Your task to perform on an android device: clear history in the chrome app Image 0: 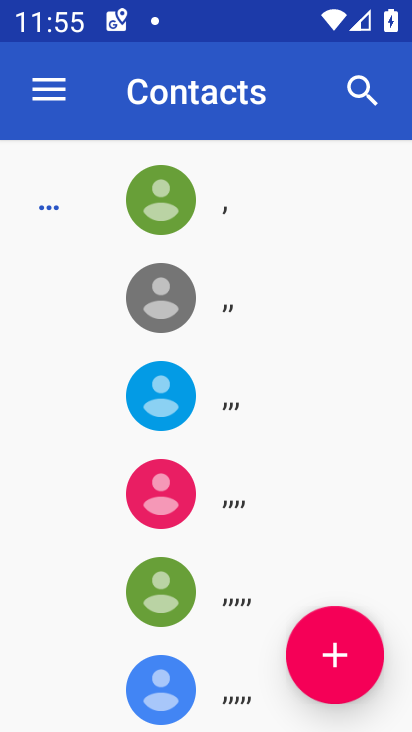
Step 0: press home button
Your task to perform on an android device: clear history in the chrome app Image 1: 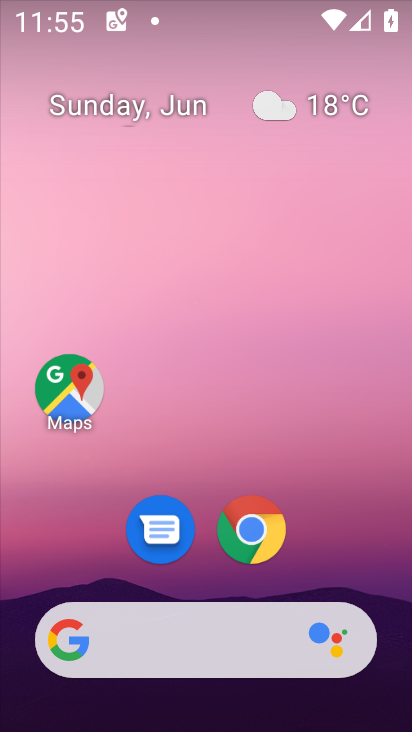
Step 1: drag from (307, 531) to (178, 5)
Your task to perform on an android device: clear history in the chrome app Image 2: 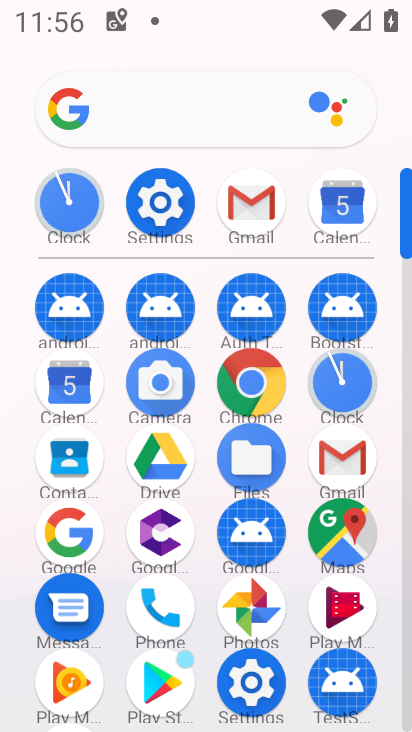
Step 2: click (256, 385)
Your task to perform on an android device: clear history in the chrome app Image 3: 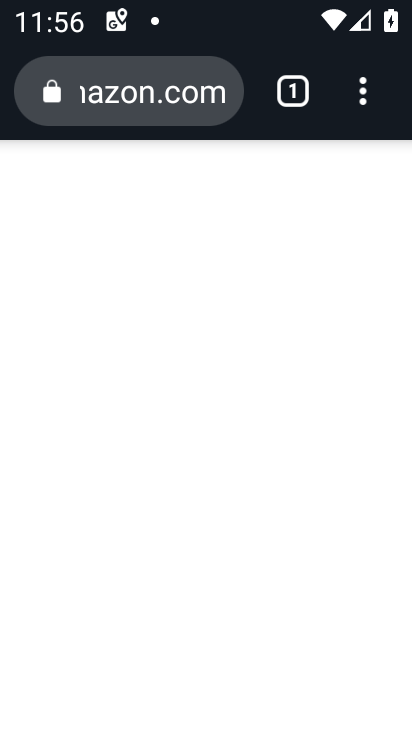
Step 3: drag from (370, 109) to (131, 530)
Your task to perform on an android device: clear history in the chrome app Image 4: 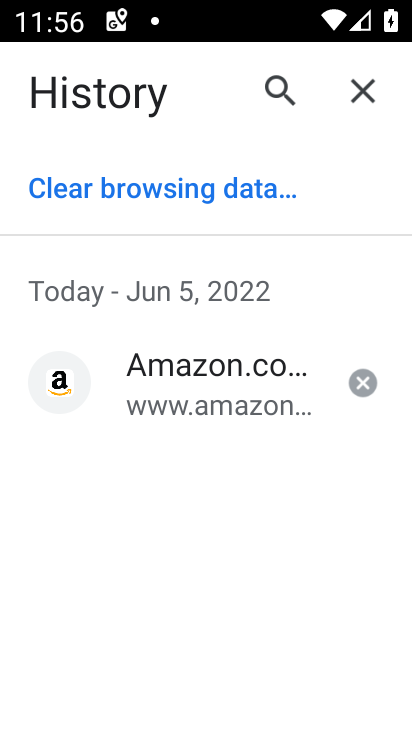
Step 4: click (234, 181)
Your task to perform on an android device: clear history in the chrome app Image 5: 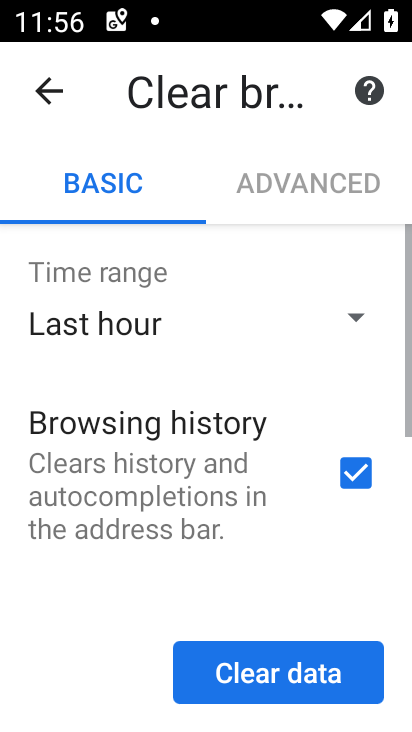
Step 5: click (323, 667)
Your task to perform on an android device: clear history in the chrome app Image 6: 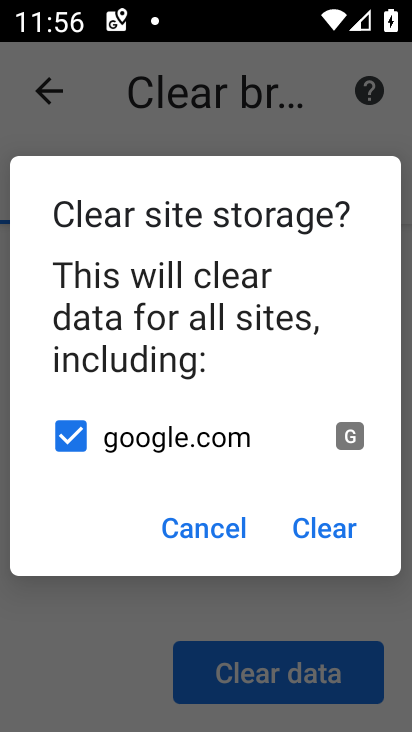
Step 6: click (325, 523)
Your task to perform on an android device: clear history in the chrome app Image 7: 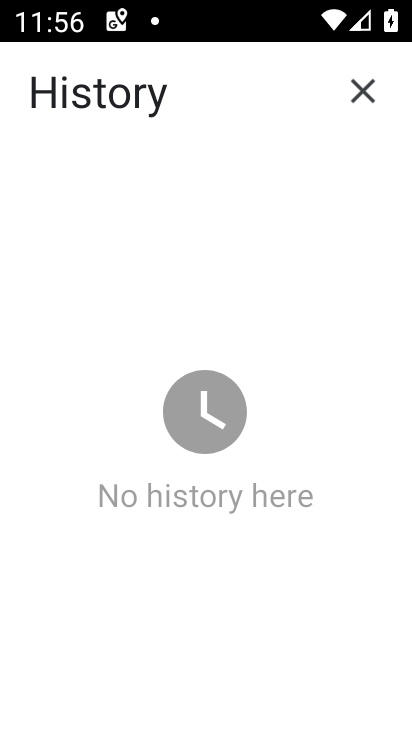
Step 7: task complete